Your task to perform on an android device: Check the news Image 0: 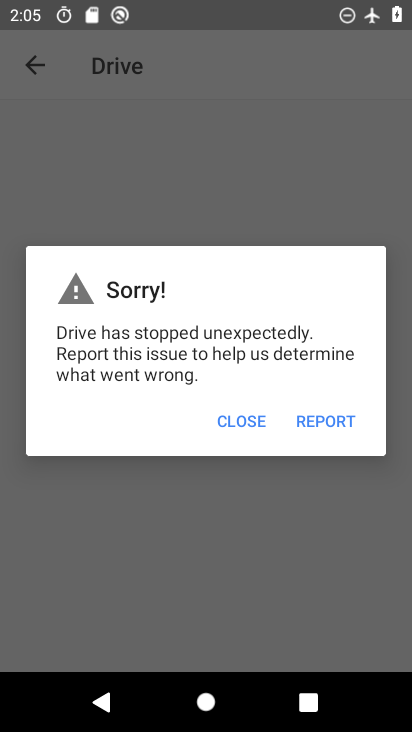
Step 0: press home button
Your task to perform on an android device: Check the news Image 1: 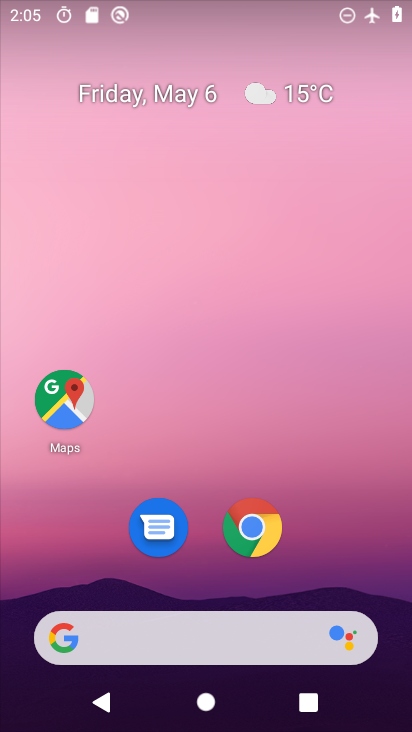
Step 1: click (250, 542)
Your task to perform on an android device: Check the news Image 2: 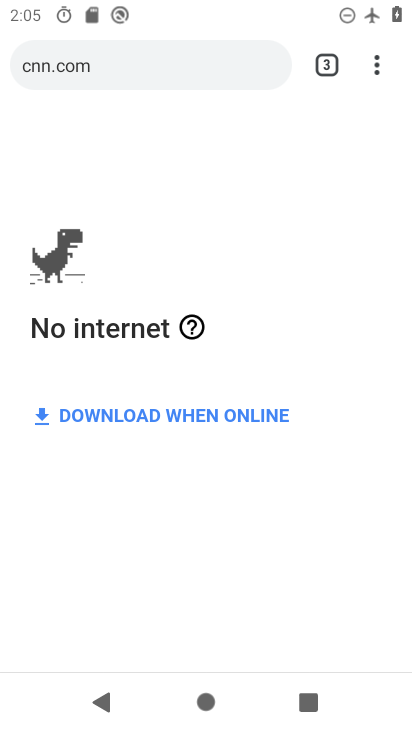
Step 2: click (325, 68)
Your task to perform on an android device: Check the news Image 3: 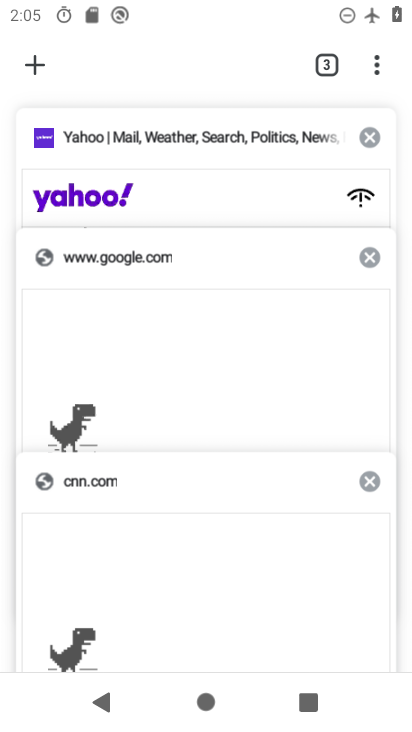
Step 3: drag from (356, 11) to (346, 594)
Your task to perform on an android device: Check the news Image 4: 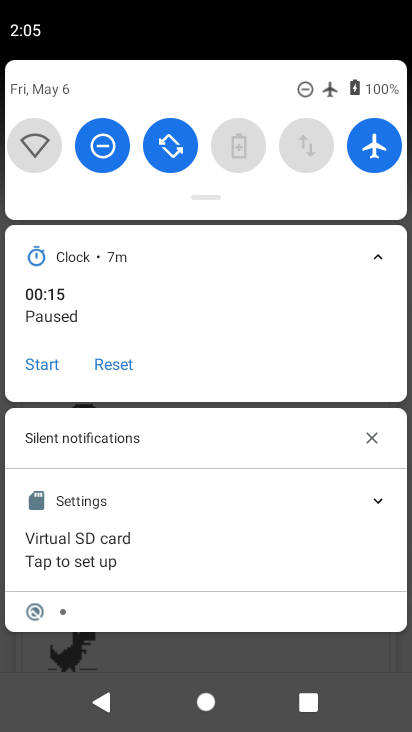
Step 4: click (386, 141)
Your task to perform on an android device: Check the news Image 5: 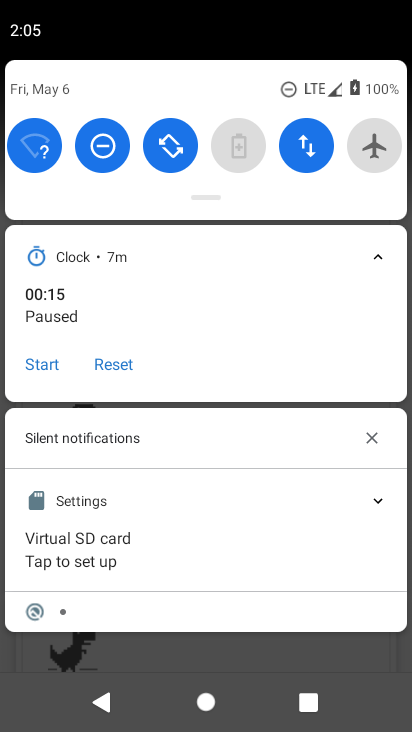
Step 5: click (226, 668)
Your task to perform on an android device: Check the news Image 6: 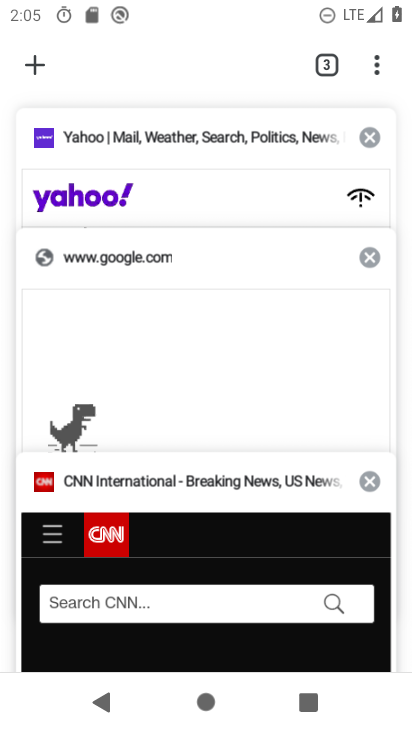
Step 6: click (29, 60)
Your task to perform on an android device: Check the news Image 7: 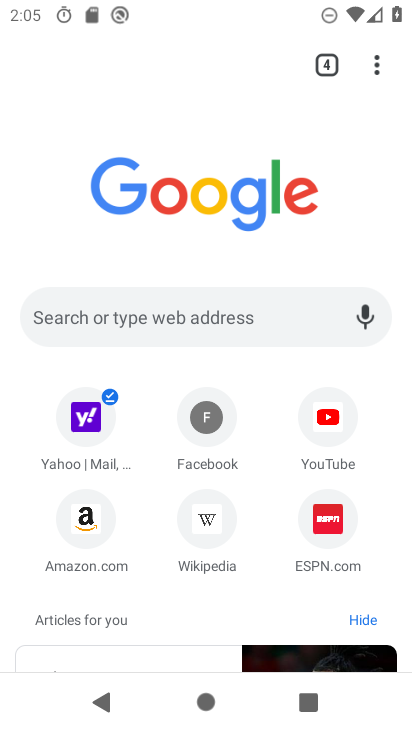
Step 7: click (161, 320)
Your task to perform on an android device: Check the news Image 8: 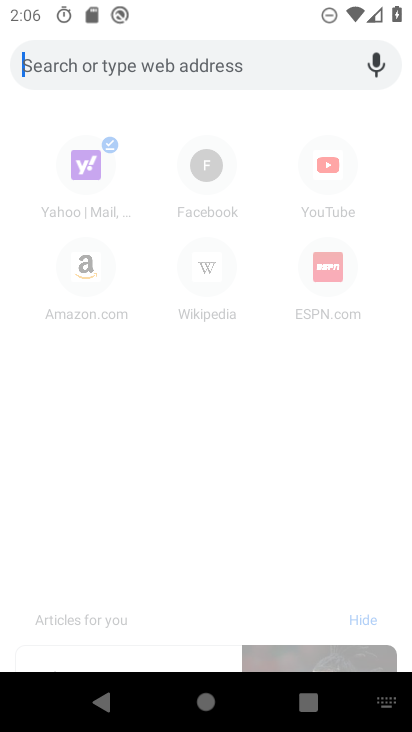
Step 8: type "check the news"
Your task to perform on an android device: Check the news Image 9: 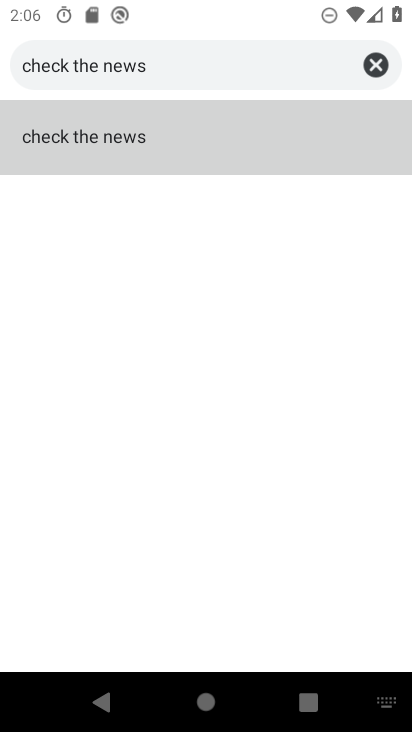
Step 9: click (119, 127)
Your task to perform on an android device: Check the news Image 10: 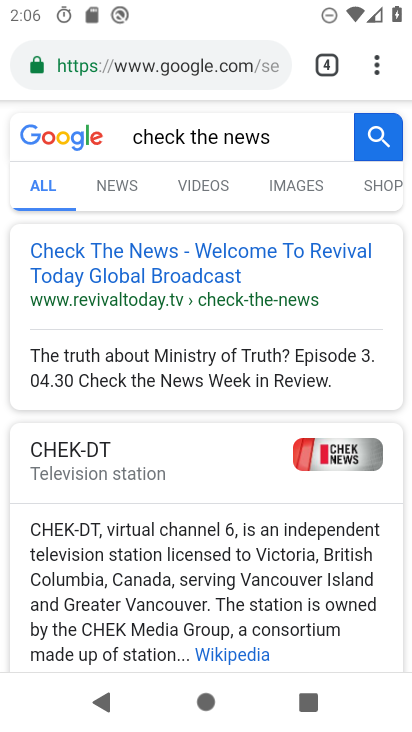
Step 10: click (107, 183)
Your task to perform on an android device: Check the news Image 11: 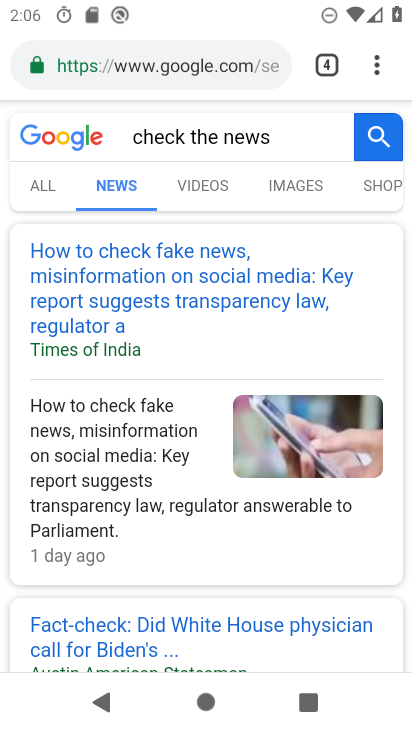
Step 11: task complete